Your task to perform on an android device: Open Android settings Image 0: 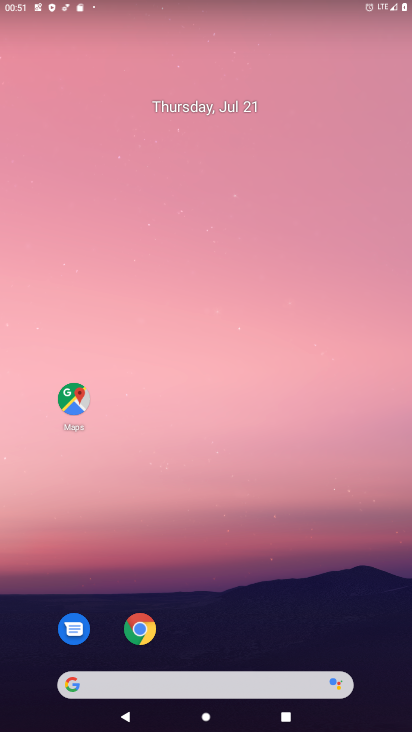
Step 0: drag from (269, 163) to (280, 69)
Your task to perform on an android device: Open Android settings Image 1: 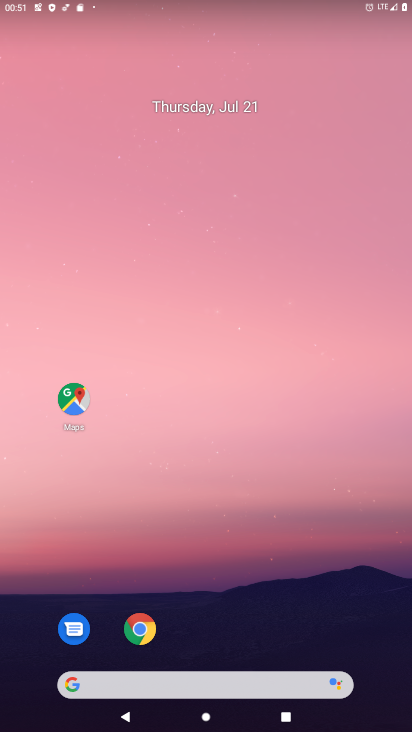
Step 1: drag from (247, 332) to (246, 33)
Your task to perform on an android device: Open Android settings Image 2: 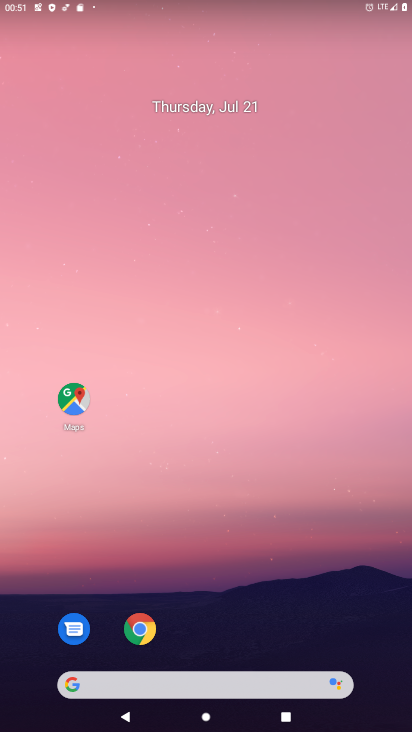
Step 2: drag from (295, 622) to (228, 79)
Your task to perform on an android device: Open Android settings Image 3: 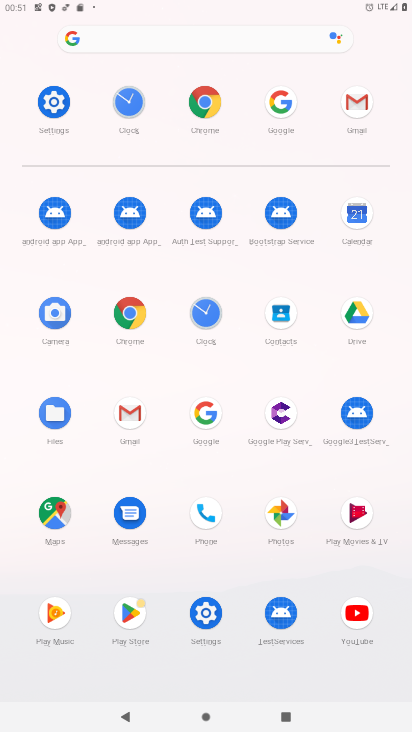
Step 3: click (46, 101)
Your task to perform on an android device: Open Android settings Image 4: 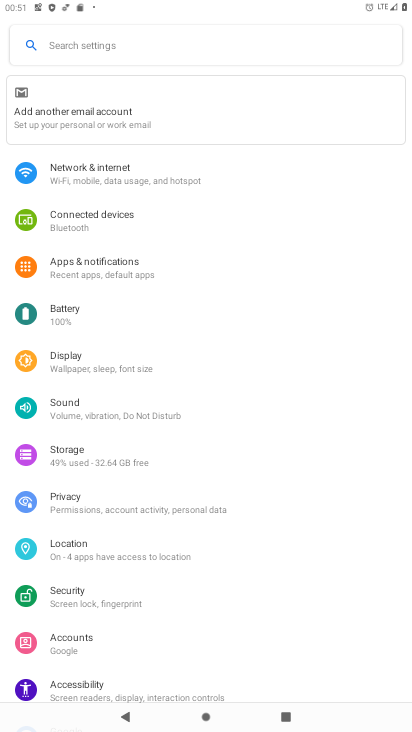
Step 4: task complete